Your task to perform on an android device: Open network settings Image 0: 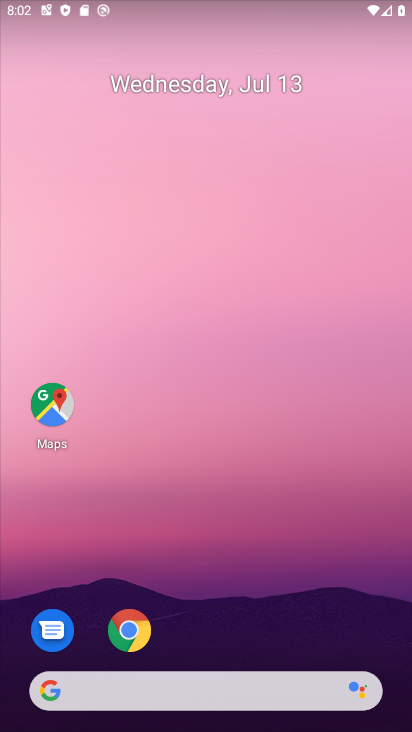
Step 0: drag from (333, 633) to (367, 111)
Your task to perform on an android device: Open network settings Image 1: 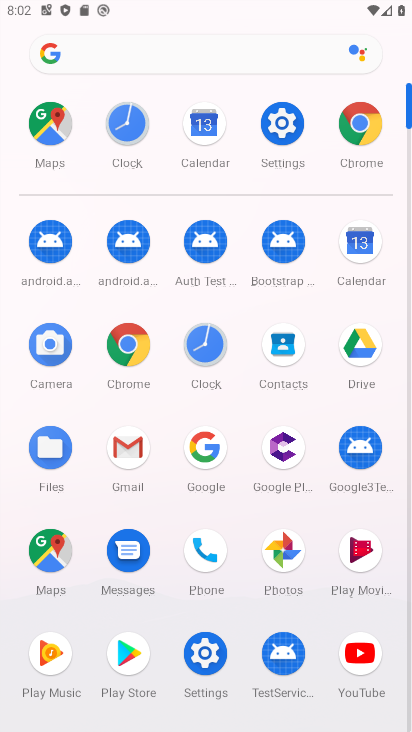
Step 1: click (281, 134)
Your task to perform on an android device: Open network settings Image 2: 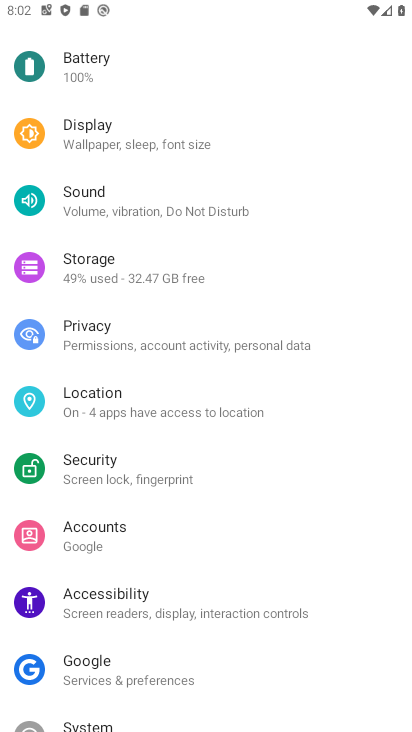
Step 2: drag from (341, 490) to (335, 407)
Your task to perform on an android device: Open network settings Image 3: 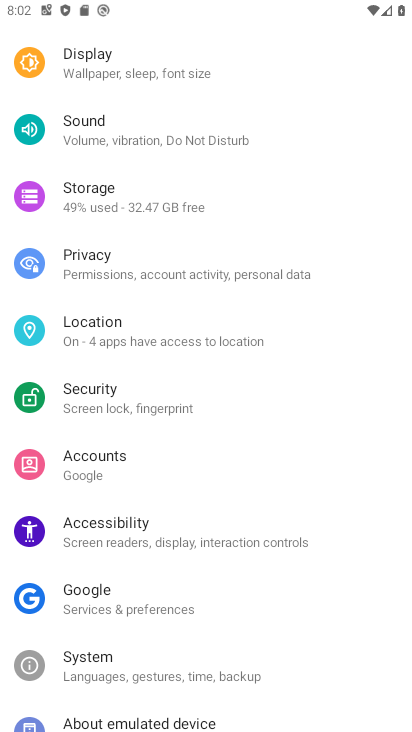
Step 3: drag from (324, 554) to (322, 409)
Your task to perform on an android device: Open network settings Image 4: 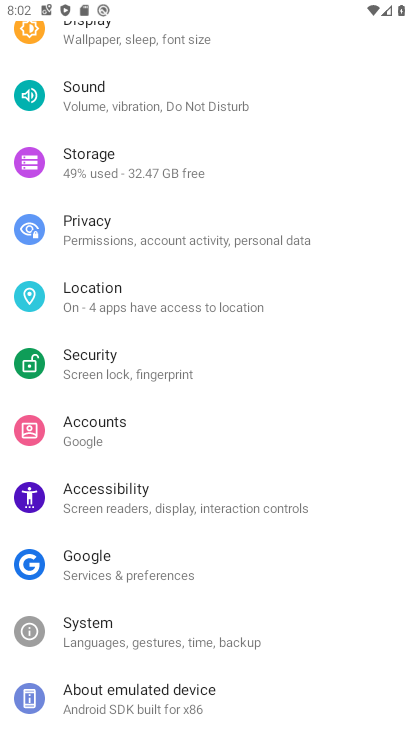
Step 4: drag from (337, 309) to (336, 406)
Your task to perform on an android device: Open network settings Image 5: 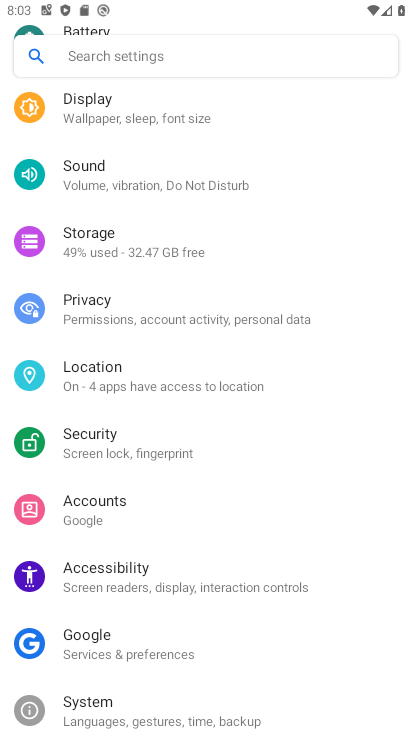
Step 5: drag from (340, 294) to (343, 387)
Your task to perform on an android device: Open network settings Image 6: 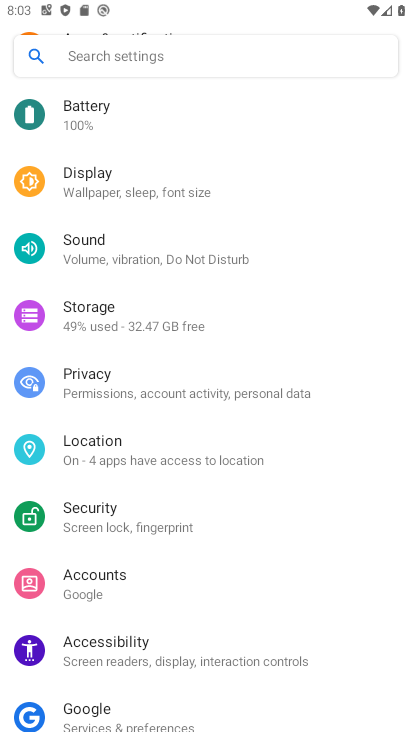
Step 6: drag from (335, 270) to (333, 366)
Your task to perform on an android device: Open network settings Image 7: 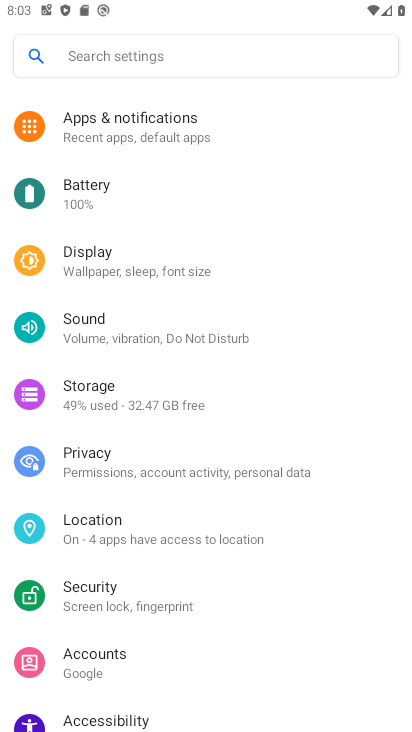
Step 7: drag from (331, 294) to (329, 375)
Your task to perform on an android device: Open network settings Image 8: 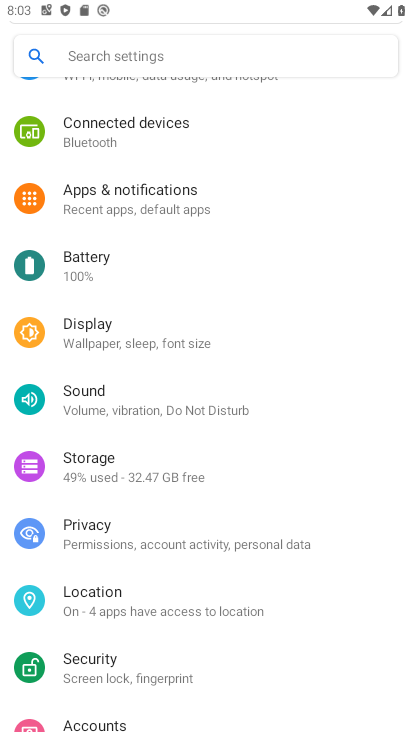
Step 8: drag from (325, 285) to (332, 369)
Your task to perform on an android device: Open network settings Image 9: 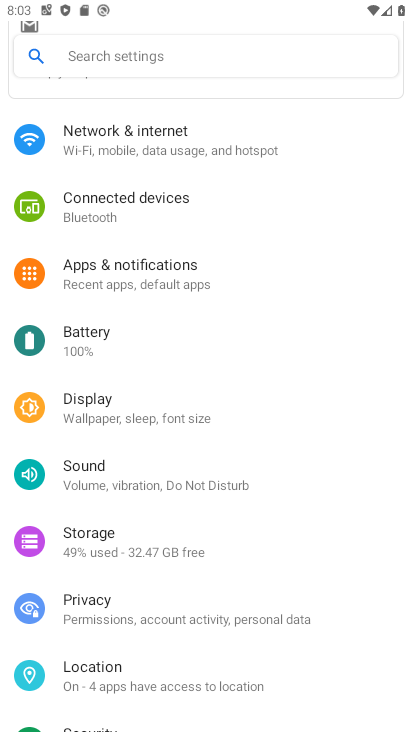
Step 9: drag from (334, 285) to (331, 438)
Your task to perform on an android device: Open network settings Image 10: 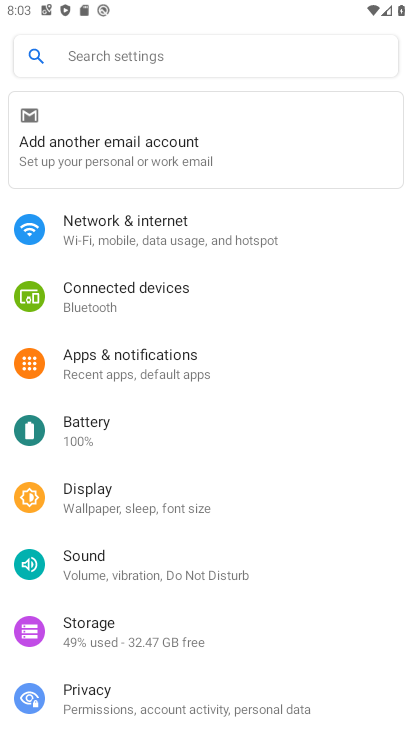
Step 10: click (235, 236)
Your task to perform on an android device: Open network settings Image 11: 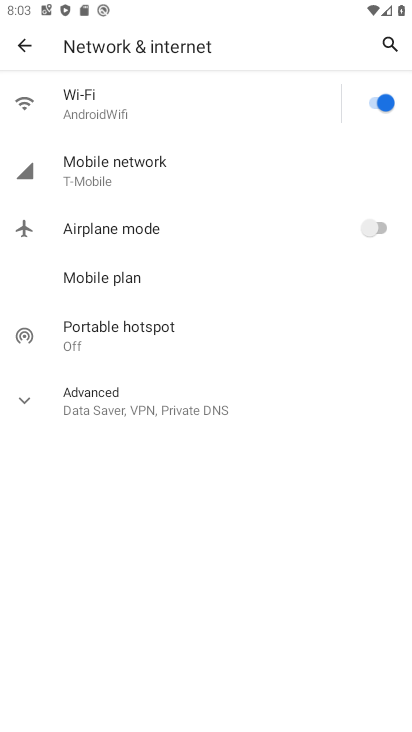
Step 11: task complete